Your task to perform on an android device: turn off improve location accuracy Image 0: 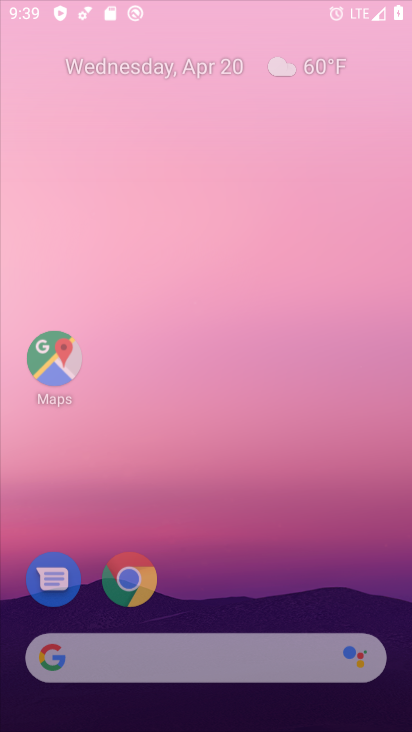
Step 0: drag from (203, 633) to (248, 16)
Your task to perform on an android device: turn off improve location accuracy Image 1: 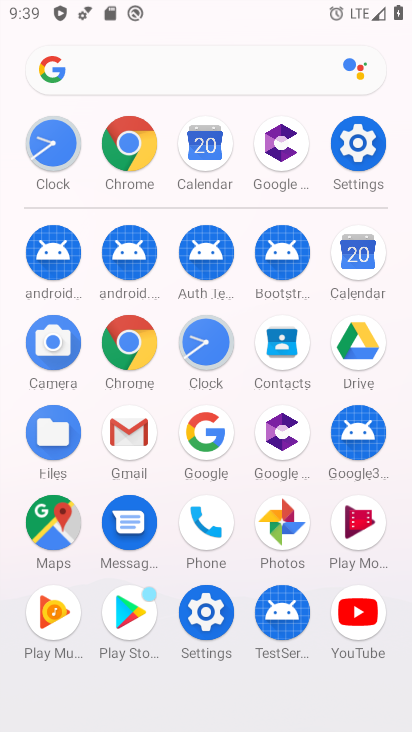
Step 1: click (351, 146)
Your task to perform on an android device: turn off improve location accuracy Image 2: 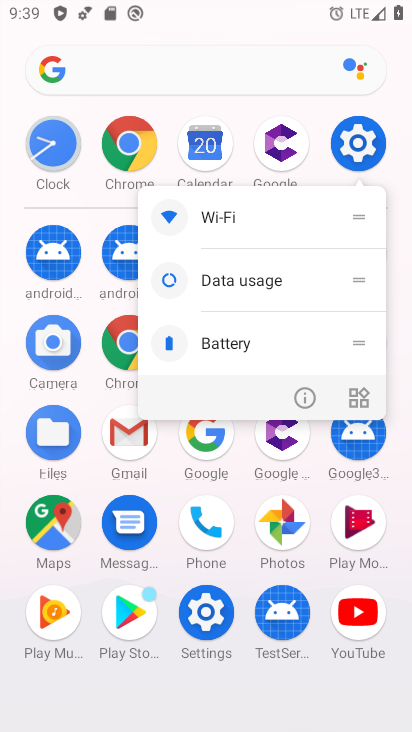
Step 2: click (355, 133)
Your task to perform on an android device: turn off improve location accuracy Image 3: 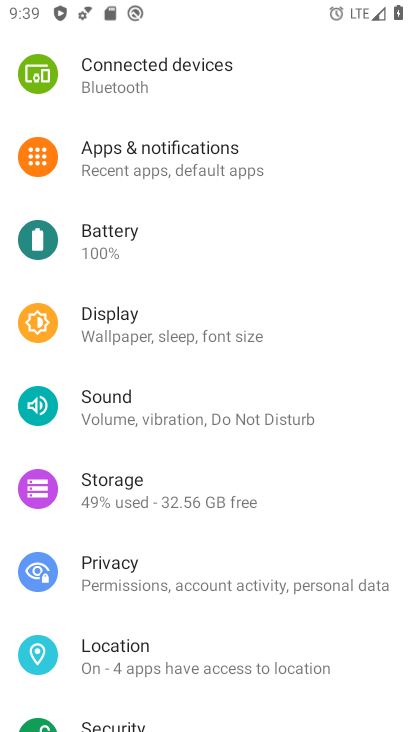
Step 3: click (202, 640)
Your task to perform on an android device: turn off improve location accuracy Image 4: 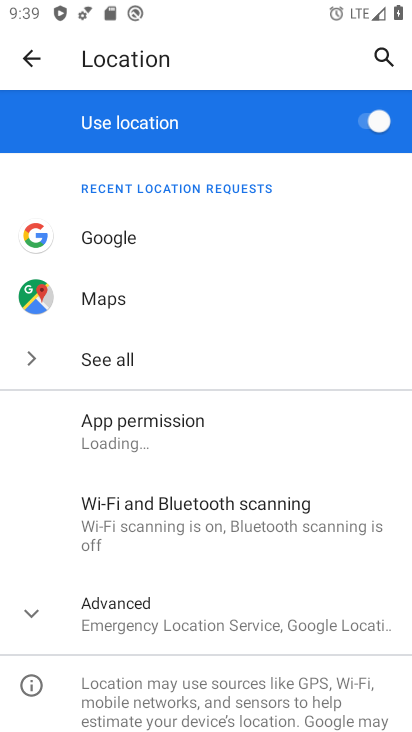
Step 4: click (211, 629)
Your task to perform on an android device: turn off improve location accuracy Image 5: 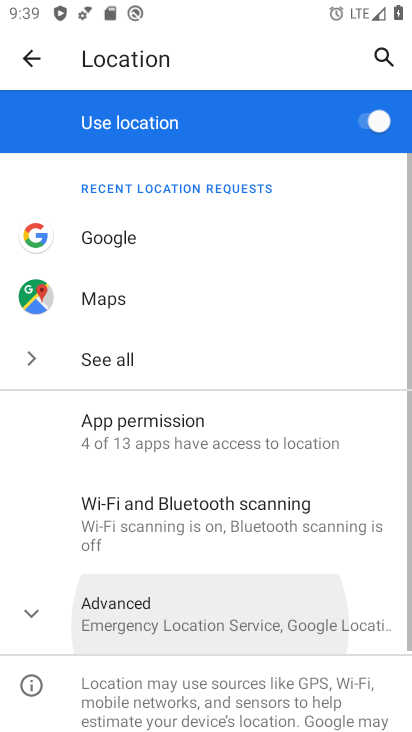
Step 5: drag from (211, 629) to (218, 88)
Your task to perform on an android device: turn off improve location accuracy Image 6: 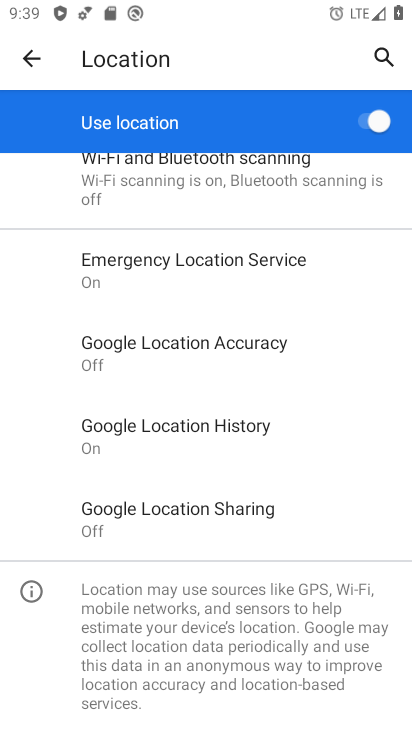
Step 6: click (259, 348)
Your task to perform on an android device: turn off improve location accuracy Image 7: 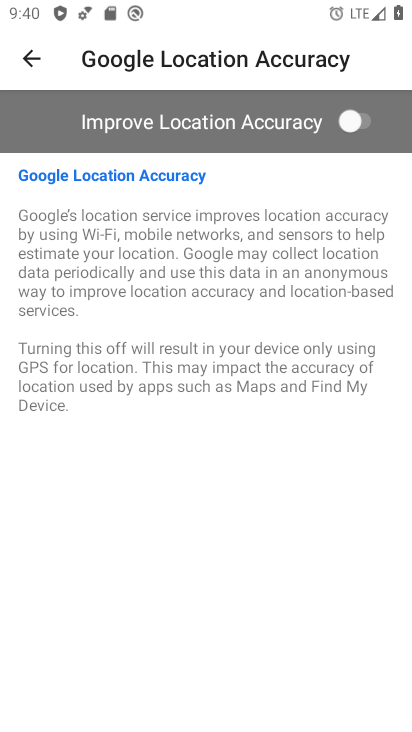
Step 7: task complete